Your task to perform on an android device: turn on wifi Image 0: 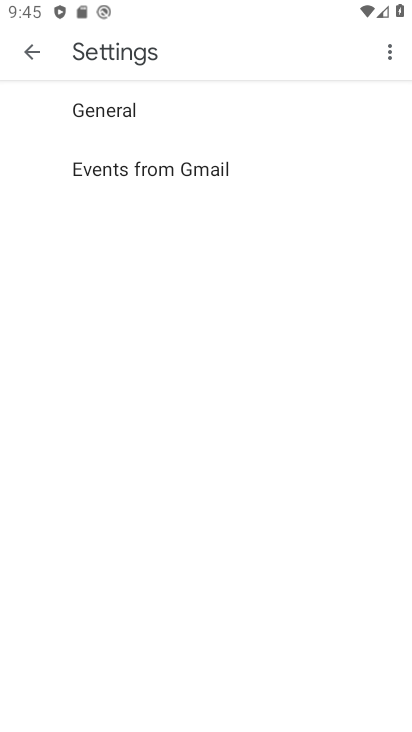
Step 0: press home button
Your task to perform on an android device: turn on wifi Image 1: 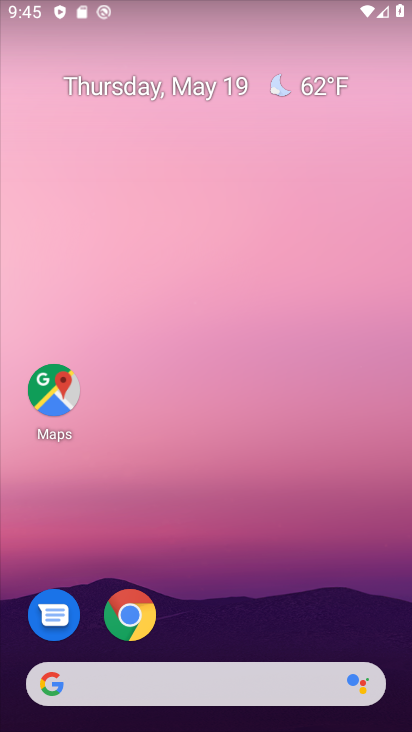
Step 1: drag from (299, 550) to (157, 10)
Your task to perform on an android device: turn on wifi Image 2: 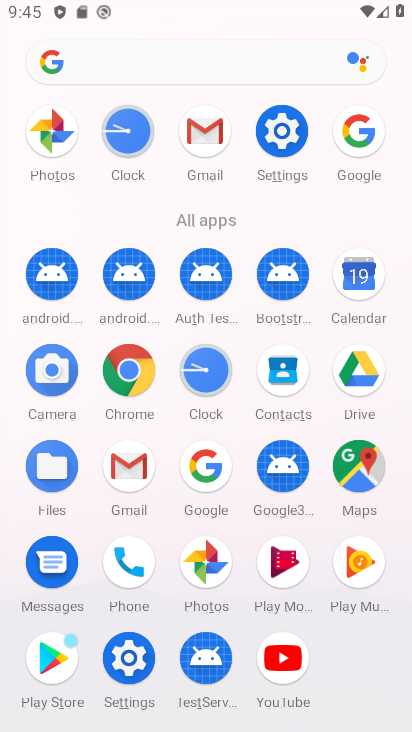
Step 2: click (281, 132)
Your task to perform on an android device: turn on wifi Image 3: 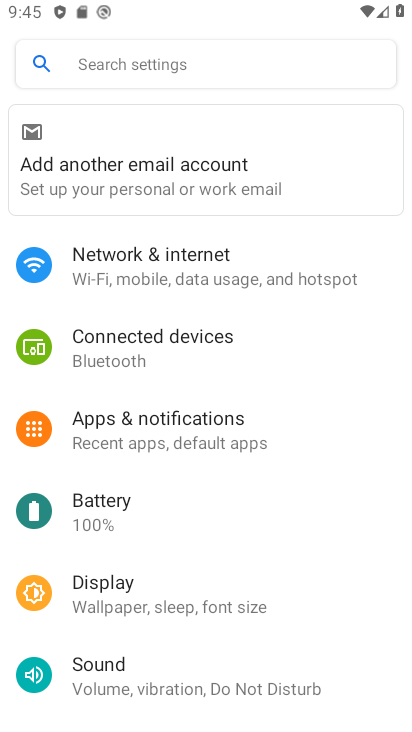
Step 3: click (246, 244)
Your task to perform on an android device: turn on wifi Image 4: 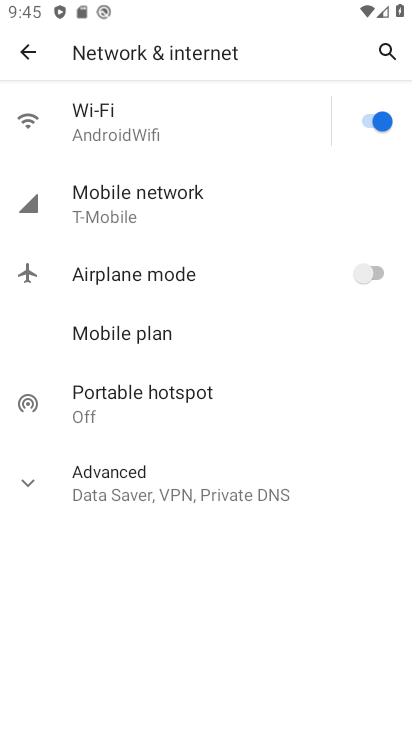
Step 4: task complete